Your task to perform on an android device: Open location settings Image 0: 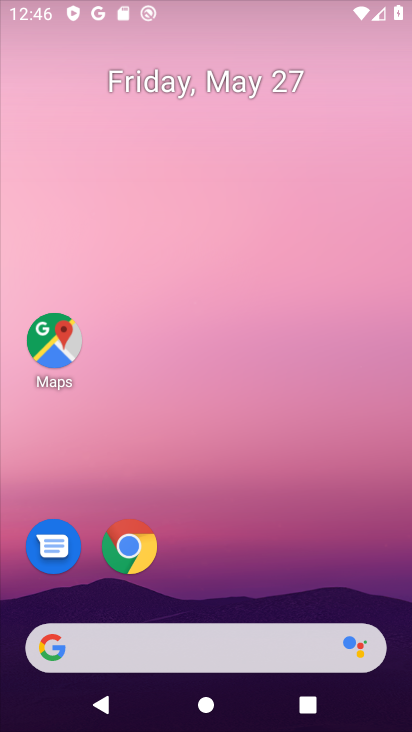
Step 0: drag from (285, 606) to (204, 263)
Your task to perform on an android device: Open location settings Image 1: 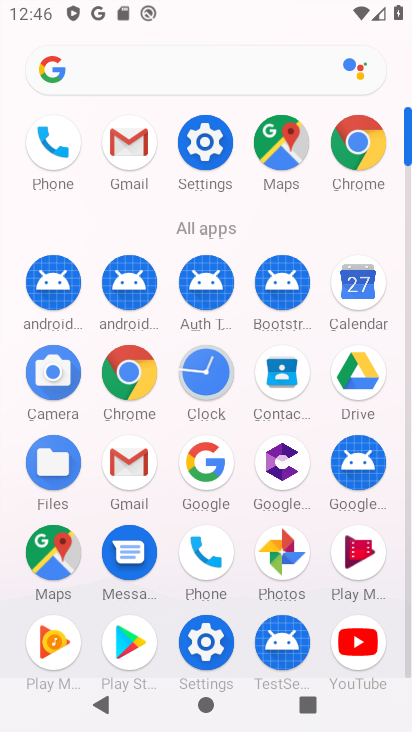
Step 1: click (215, 140)
Your task to perform on an android device: Open location settings Image 2: 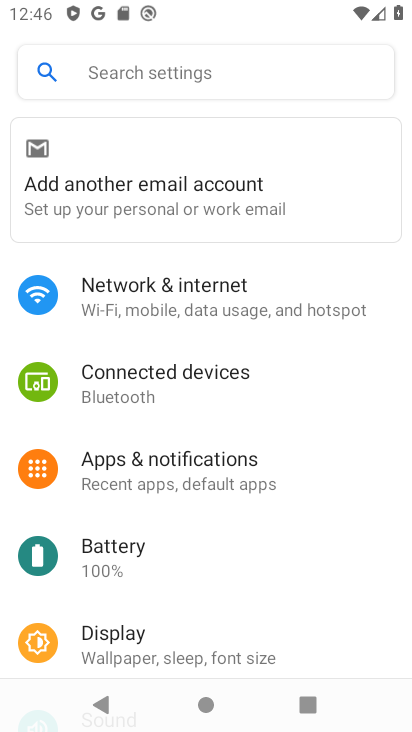
Step 2: drag from (162, 578) to (125, 175)
Your task to perform on an android device: Open location settings Image 3: 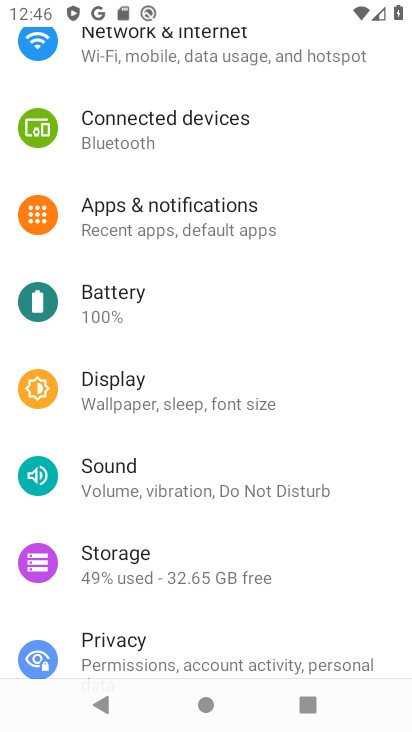
Step 3: drag from (178, 413) to (178, 248)
Your task to perform on an android device: Open location settings Image 4: 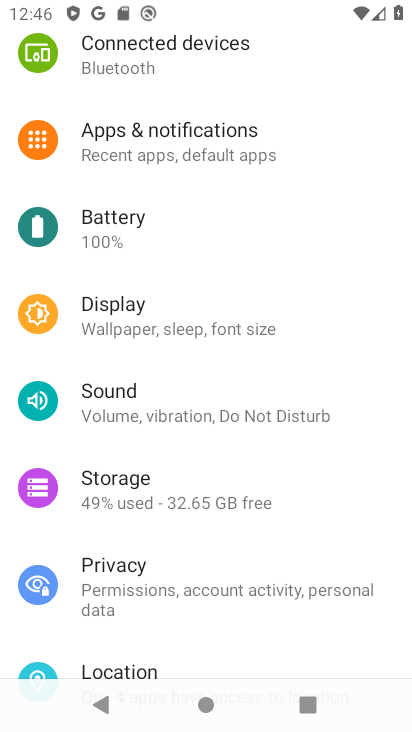
Step 4: drag from (161, 484) to (161, 183)
Your task to perform on an android device: Open location settings Image 5: 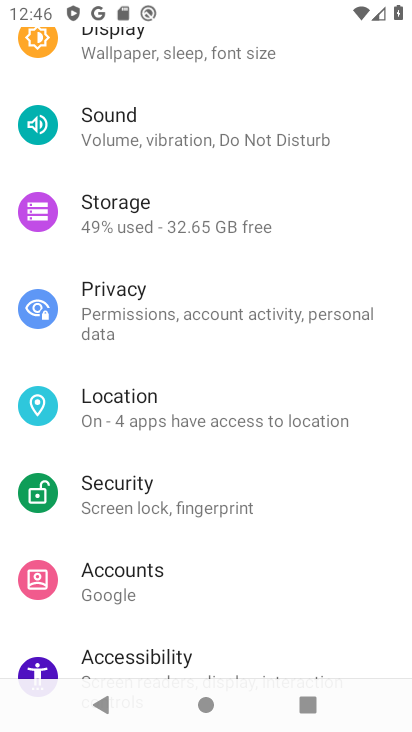
Step 5: drag from (208, 445) to (171, 79)
Your task to perform on an android device: Open location settings Image 6: 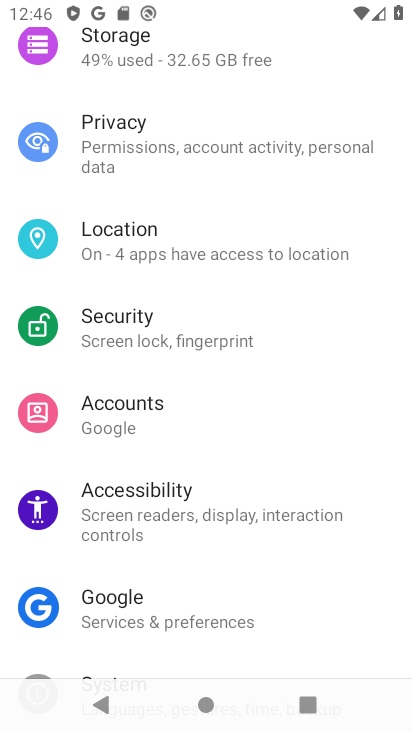
Step 6: drag from (194, 461) to (151, 22)
Your task to perform on an android device: Open location settings Image 7: 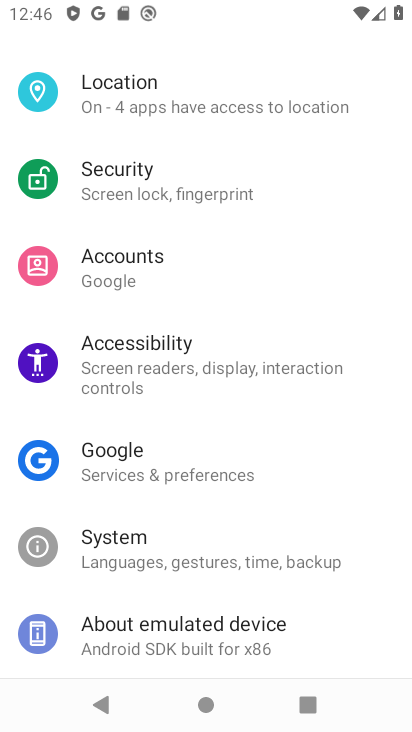
Step 7: click (138, 105)
Your task to perform on an android device: Open location settings Image 8: 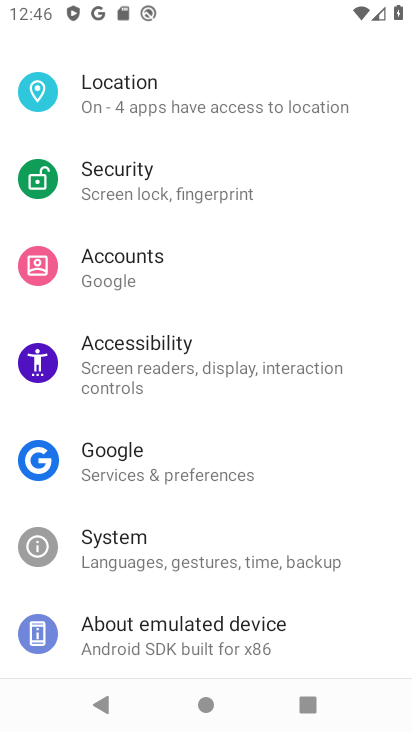
Step 8: click (138, 105)
Your task to perform on an android device: Open location settings Image 9: 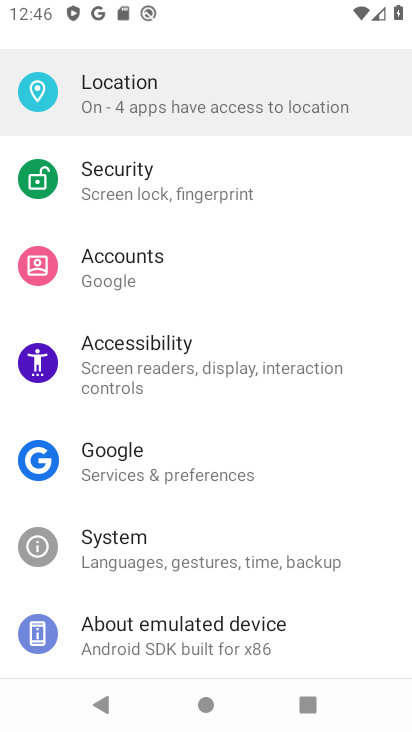
Step 9: click (138, 105)
Your task to perform on an android device: Open location settings Image 10: 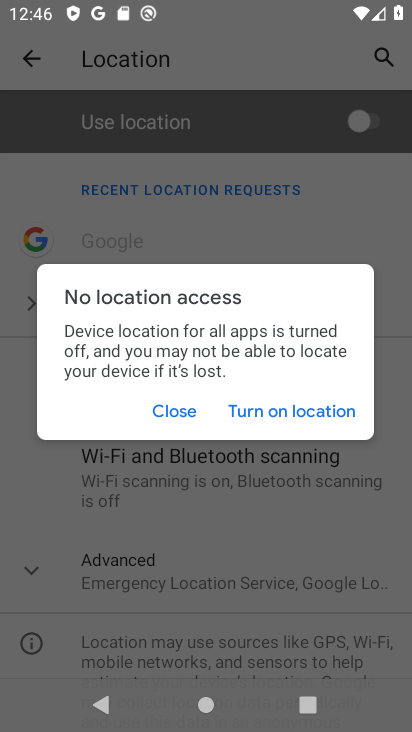
Step 10: click (154, 410)
Your task to perform on an android device: Open location settings Image 11: 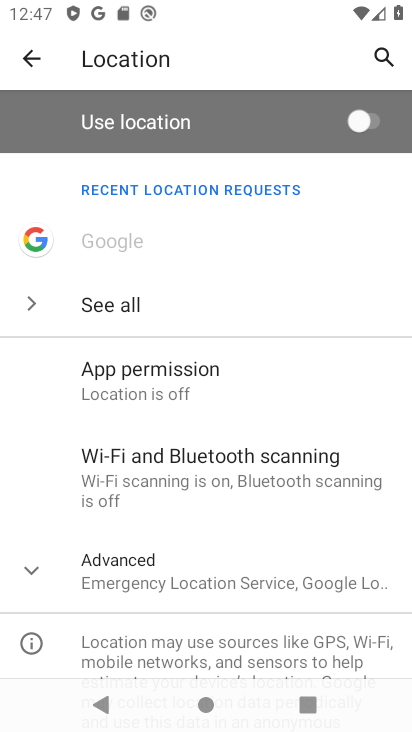
Step 11: drag from (135, 429) to (128, 162)
Your task to perform on an android device: Open location settings Image 12: 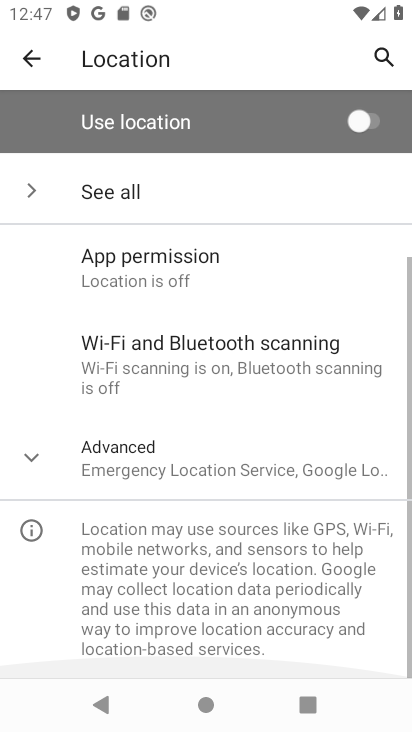
Step 12: drag from (128, 456) to (140, 120)
Your task to perform on an android device: Open location settings Image 13: 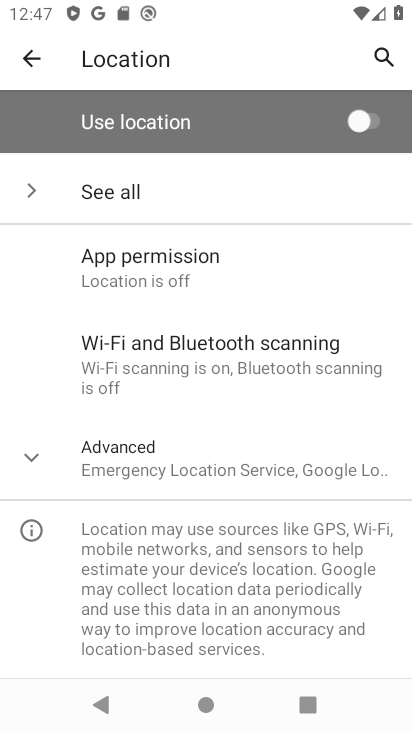
Step 13: click (148, 264)
Your task to perform on an android device: Open location settings Image 14: 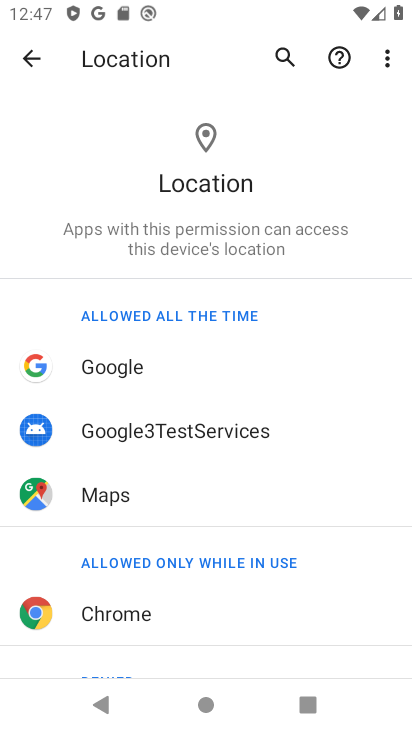
Step 14: drag from (172, 418) to (141, 119)
Your task to perform on an android device: Open location settings Image 15: 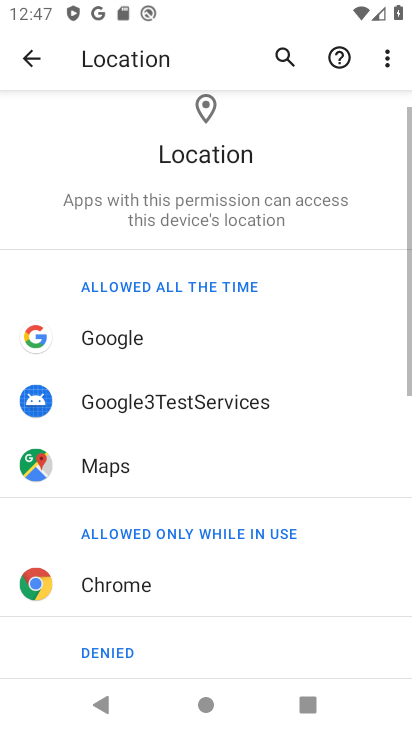
Step 15: drag from (196, 444) to (156, 97)
Your task to perform on an android device: Open location settings Image 16: 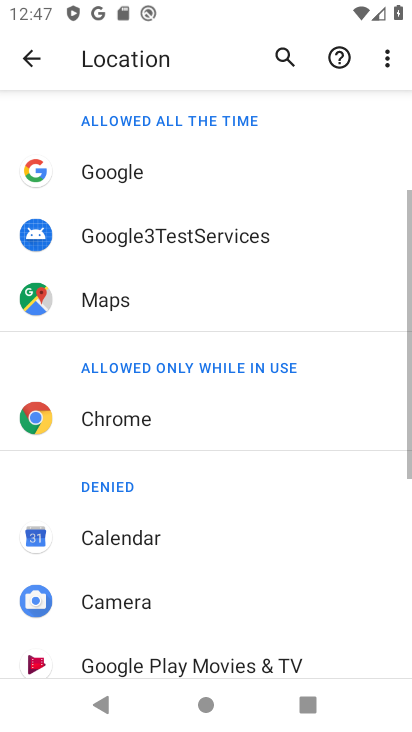
Step 16: drag from (125, 501) to (116, 137)
Your task to perform on an android device: Open location settings Image 17: 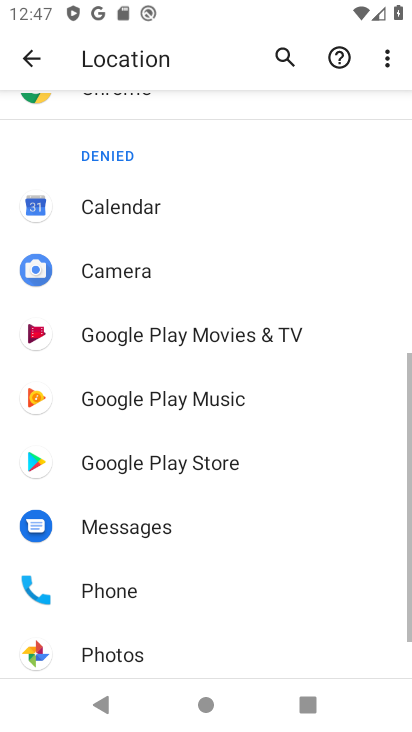
Step 17: click (31, 64)
Your task to perform on an android device: Open location settings Image 18: 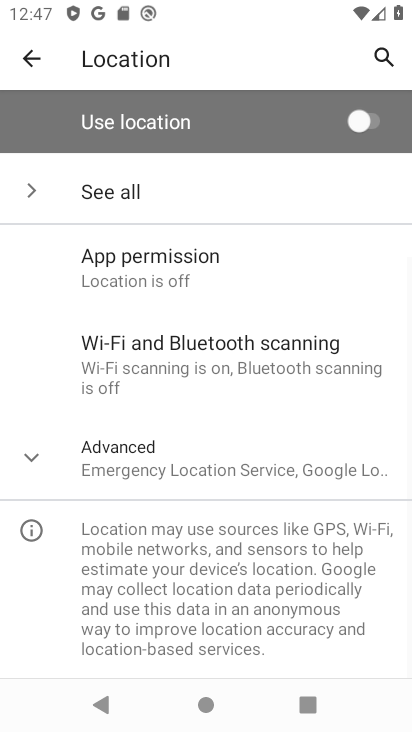
Step 18: task complete